Your task to perform on an android device: Show me popular videos on Youtube Image 0: 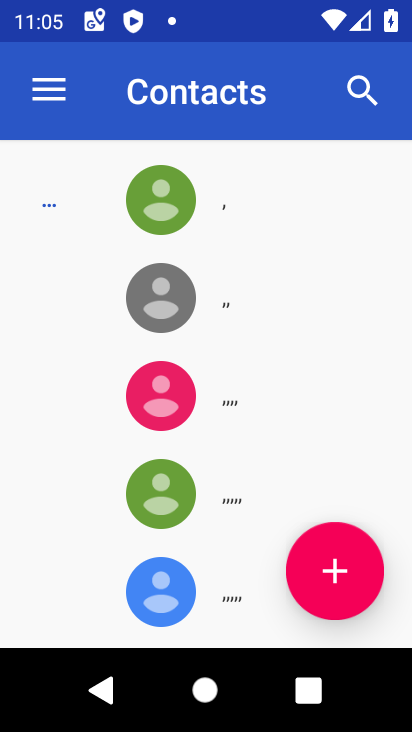
Step 0: press home button
Your task to perform on an android device: Show me popular videos on Youtube Image 1: 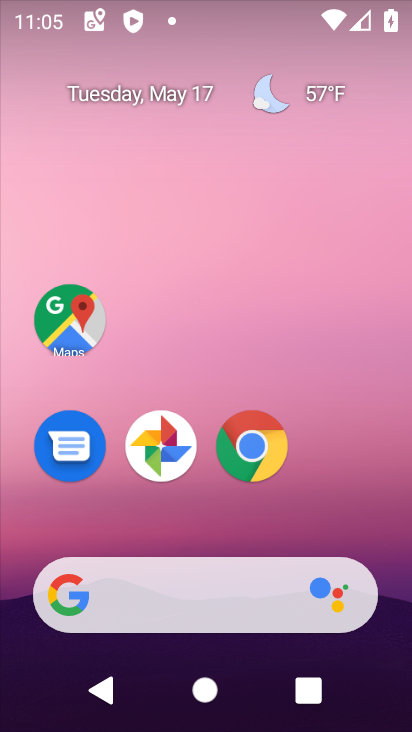
Step 1: drag from (184, 549) to (196, 116)
Your task to perform on an android device: Show me popular videos on Youtube Image 2: 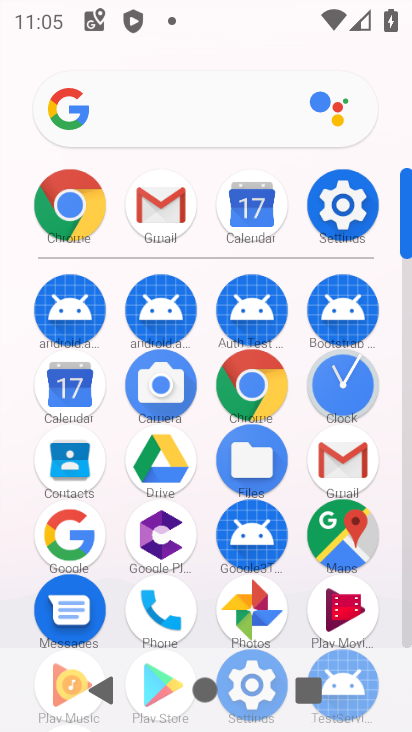
Step 2: drag from (183, 499) to (165, 11)
Your task to perform on an android device: Show me popular videos on Youtube Image 3: 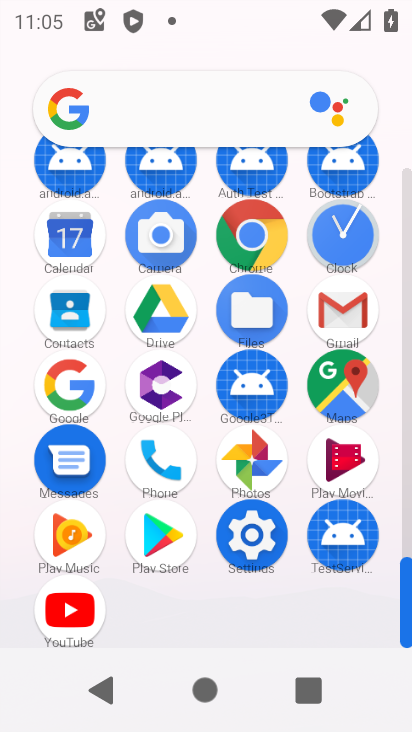
Step 3: click (69, 606)
Your task to perform on an android device: Show me popular videos on Youtube Image 4: 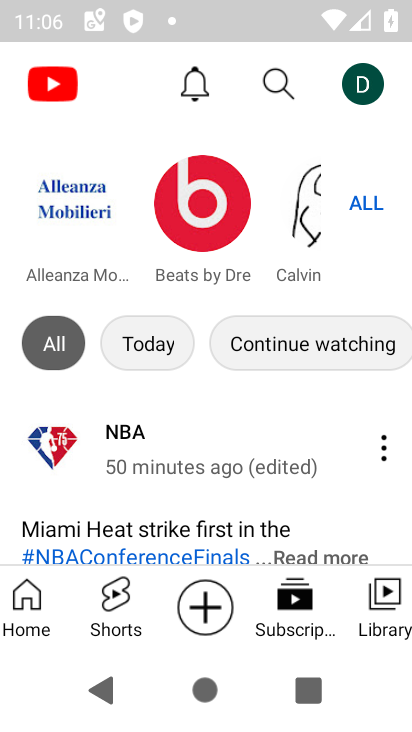
Step 4: click (28, 600)
Your task to perform on an android device: Show me popular videos on Youtube Image 5: 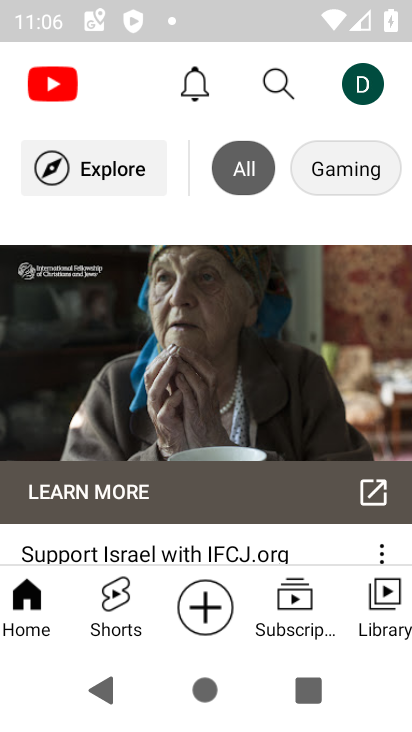
Step 5: task complete